Your task to perform on an android device: toggle location history Image 0: 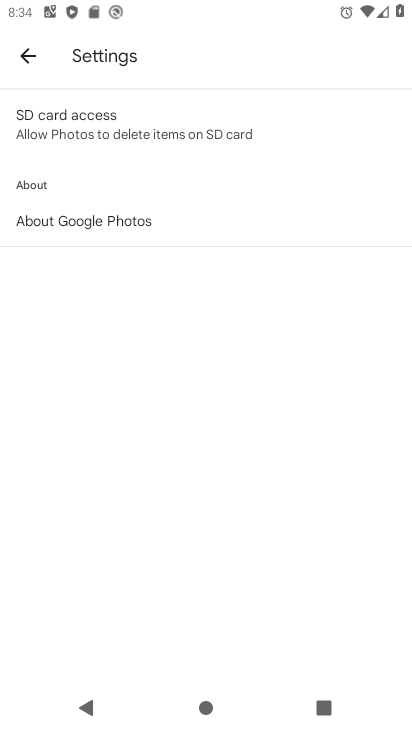
Step 0: press home button
Your task to perform on an android device: toggle location history Image 1: 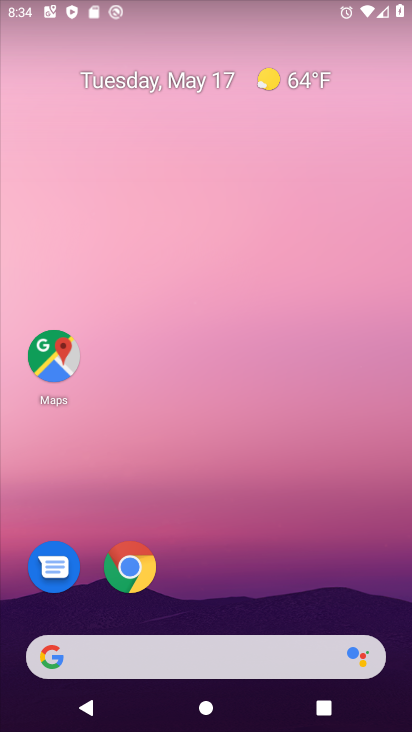
Step 1: drag from (354, 607) to (247, 89)
Your task to perform on an android device: toggle location history Image 2: 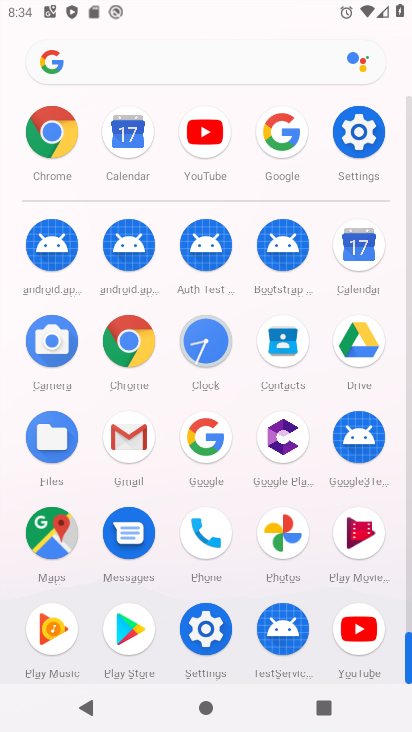
Step 2: click (209, 638)
Your task to perform on an android device: toggle location history Image 3: 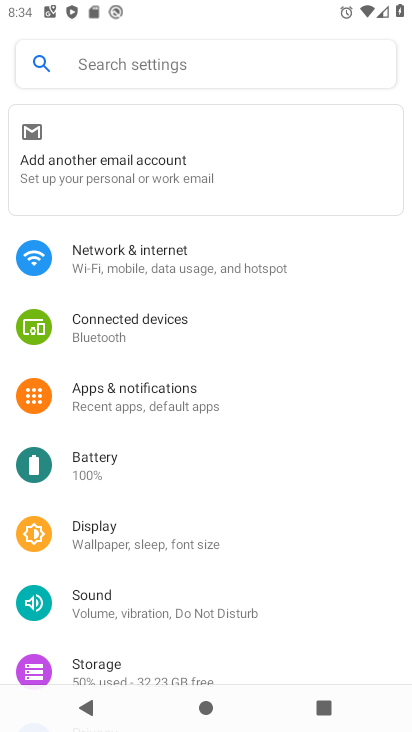
Step 3: drag from (130, 605) to (137, 205)
Your task to perform on an android device: toggle location history Image 4: 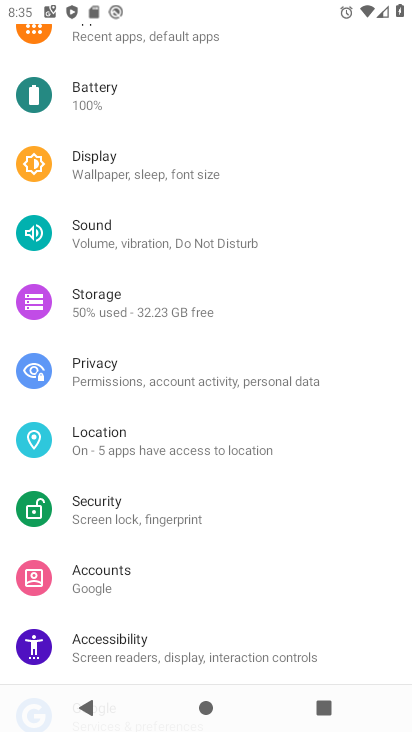
Step 4: click (126, 443)
Your task to perform on an android device: toggle location history Image 5: 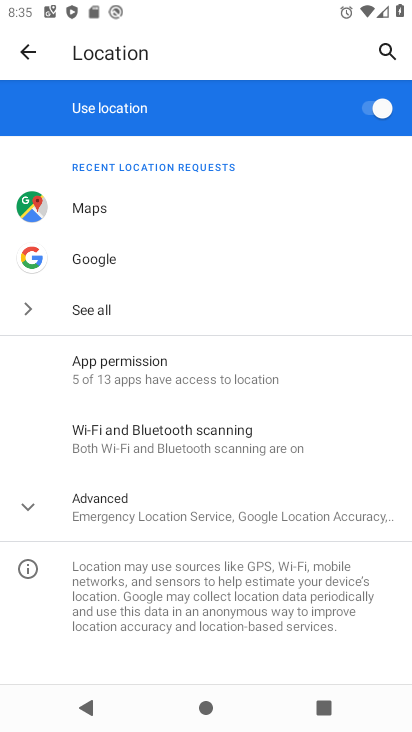
Step 5: click (160, 499)
Your task to perform on an android device: toggle location history Image 6: 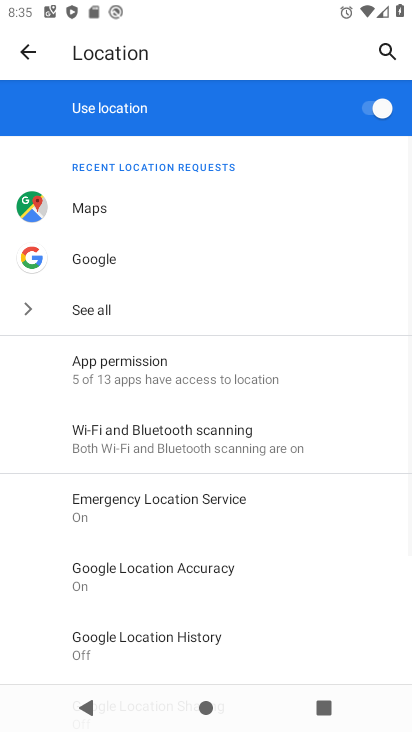
Step 6: click (189, 628)
Your task to perform on an android device: toggle location history Image 7: 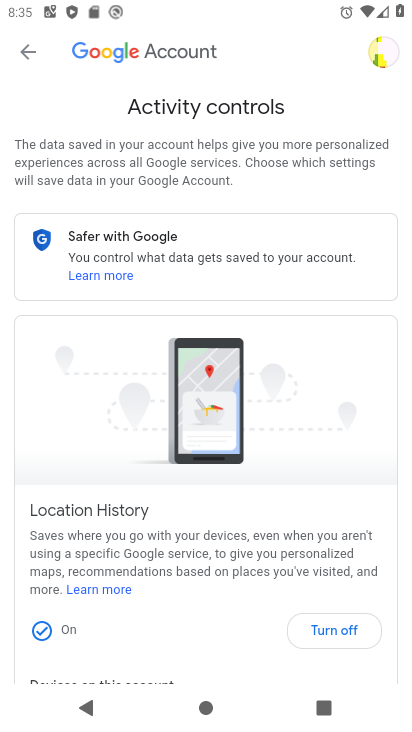
Step 7: drag from (203, 590) to (218, 239)
Your task to perform on an android device: toggle location history Image 8: 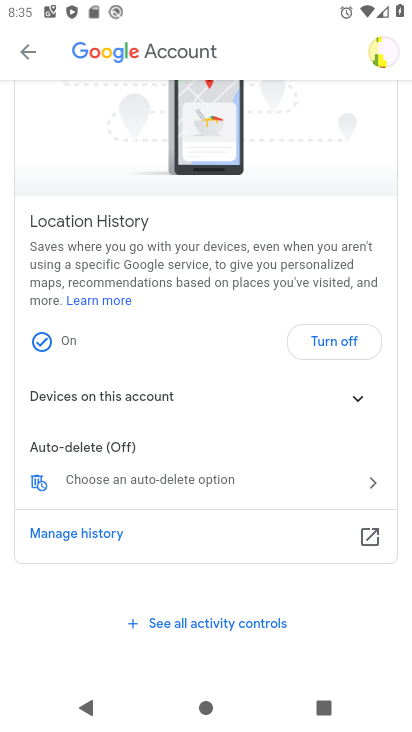
Step 8: click (327, 350)
Your task to perform on an android device: toggle location history Image 9: 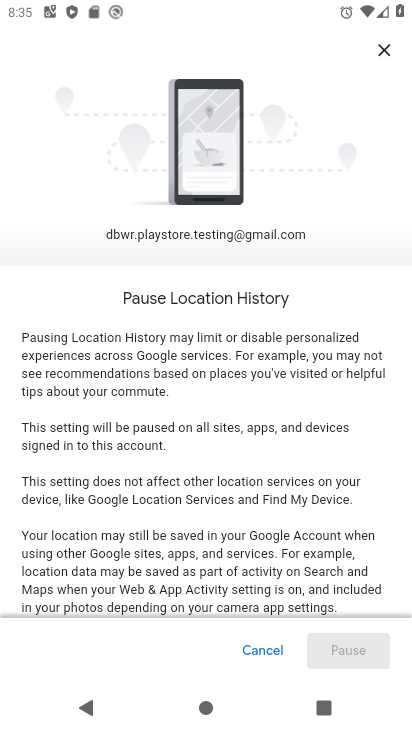
Step 9: task complete